Your task to perform on an android device: Play the last video I watched on Youtube Image 0: 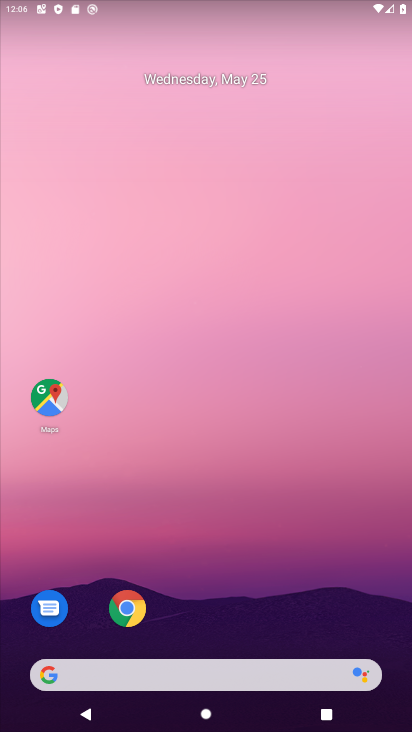
Step 0: drag from (279, 591) to (280, 71)
Your task to perform on an android device: Play the last video I watched on Youtube Image 1: 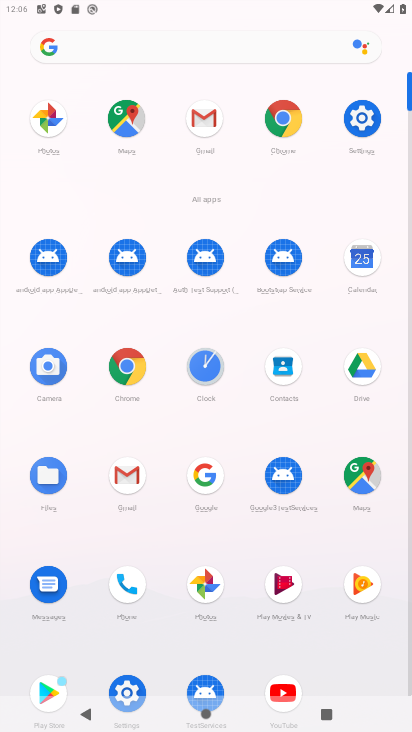
Step 1: click (277, 682)
Your task to perform on an android device: Play the last video I watched on Youtube Image 2: 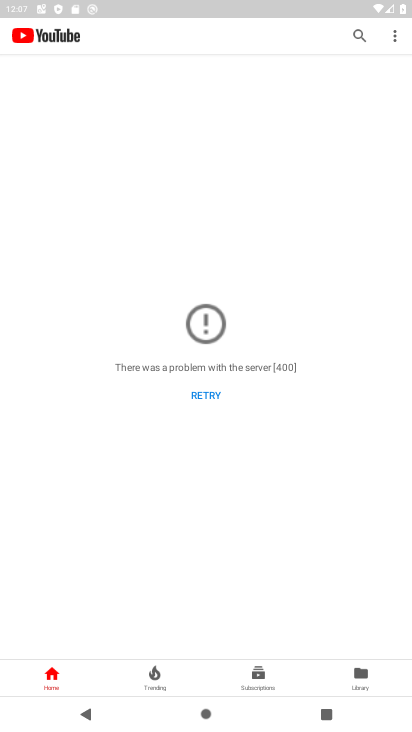
Step 2: task complete